Your task to perform on an android device: turn off wifi Image 0: 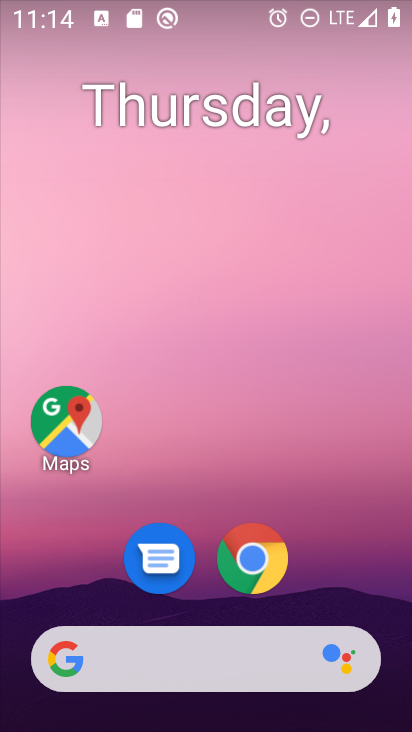
Step 0: drag from (392, 636) to (350, 104)
Your task to perform on an android device: turn off wifi Image 1: 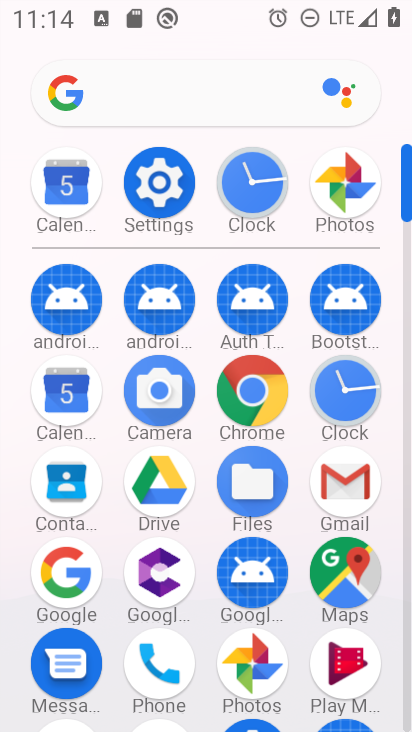
Step 1: click (407, 710)
Your task to perform on an android device: turn off wifi Image 2: 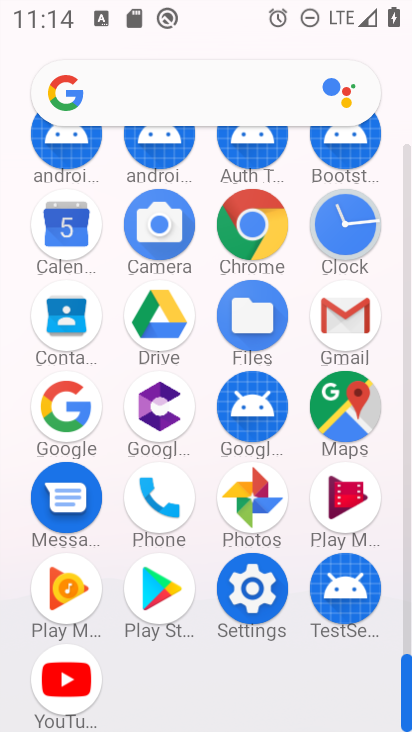
Step 2: click (243, 587)
Your task to perform on an android device: turn off wifi Image 3: 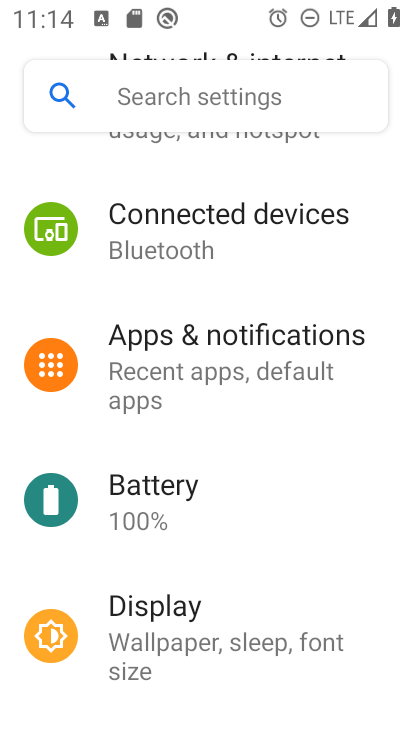
Step 3: drag from (363, 232) to (362, 547)
Your task to perform on an android device: turn off wifi Image 4: 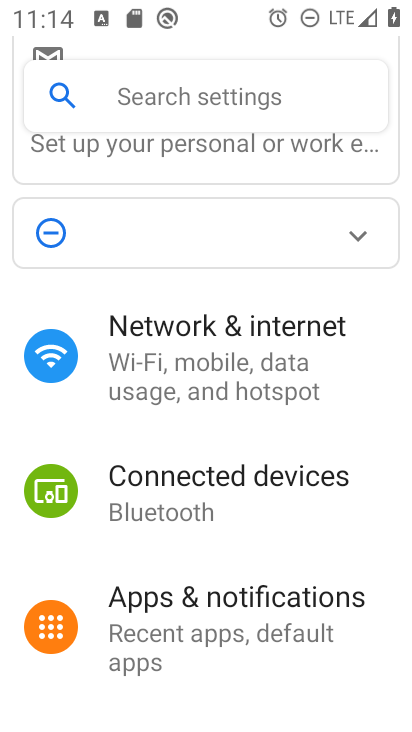
Step 4: click (160, 346)
Your task to perform on an android device: turn off wifi Image 5: 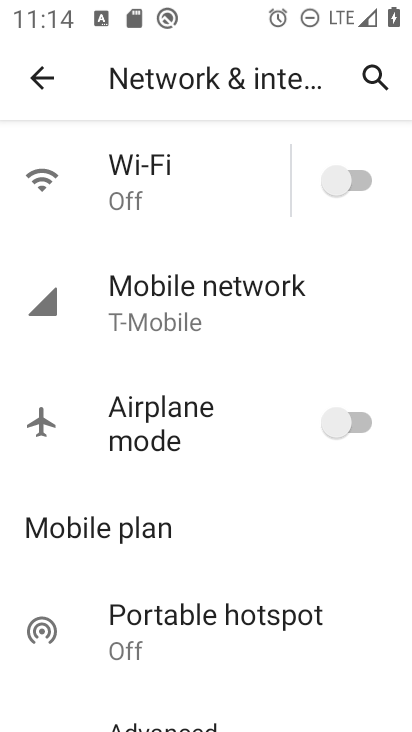
Step 5: task complete